Your task to perform on an android device: Go to ESPN.com Image 0: 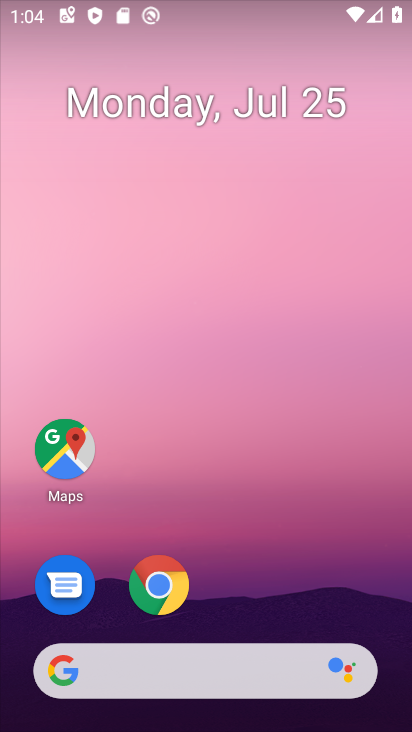
Step 0: click (213, 677)
Your task to perform on an android device: Go to ESPN.com Image 1: 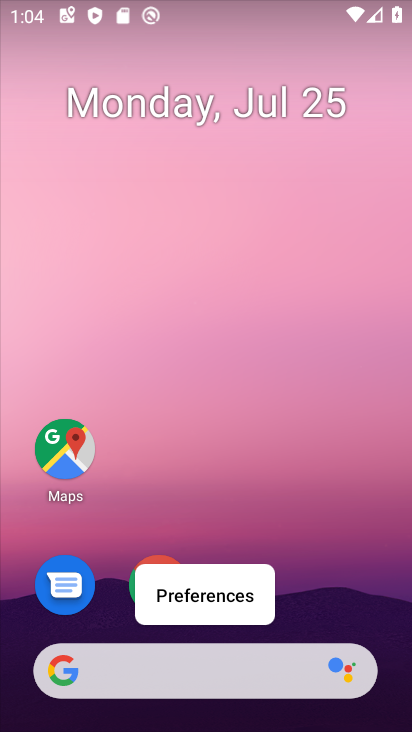
Step 1: click (172, 689)
Your task to perform on an android device: Go to ESPN.com Image 2: 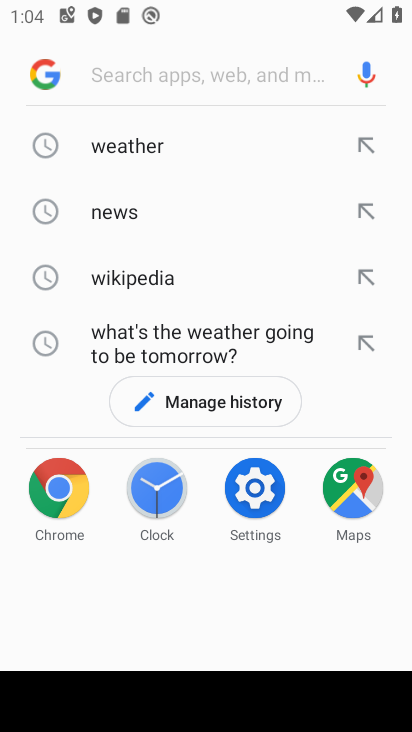
Step 2: type "espn.com"
Your task to perform on an android device: Go to ESPN.com Image 3: 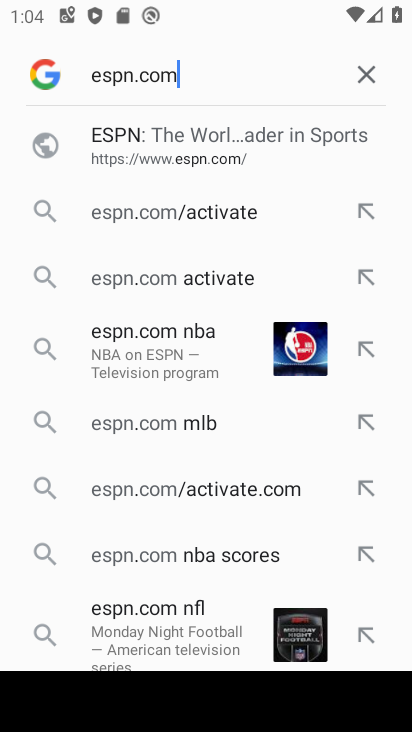
Step 3: click (258, 146)
Your task to perform on an android device: Go to ESPN.com Image 4: 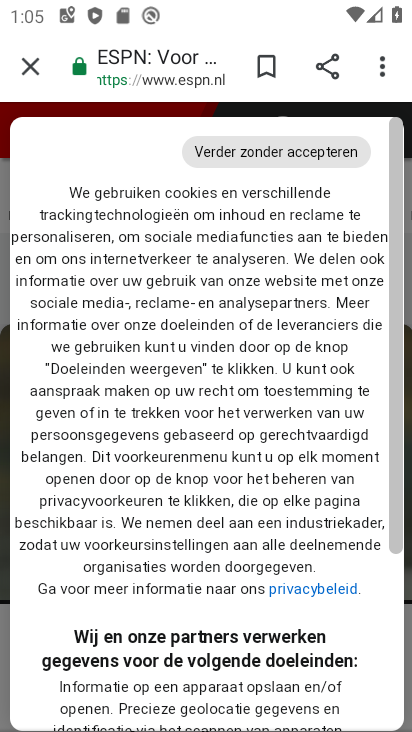
Step 4: drag from (271, 660) to (287, 200)
Your task to perform on an android device: Go to ESPN.com Image 5: 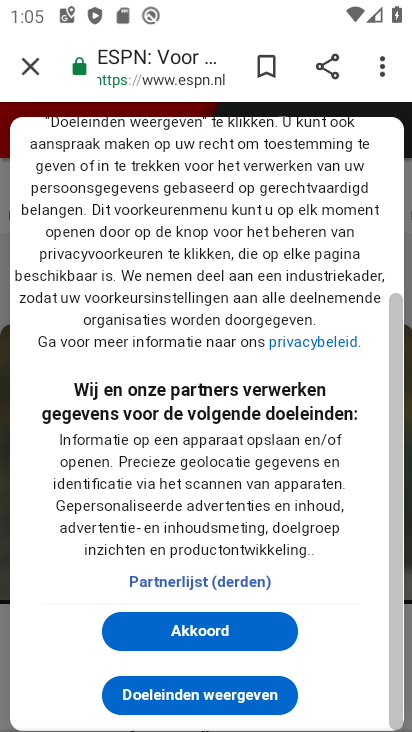
Step 5: drag from (290, 498) to (297, 259)
Your task to perform on an android device: Go to ESPN.com Image 6: 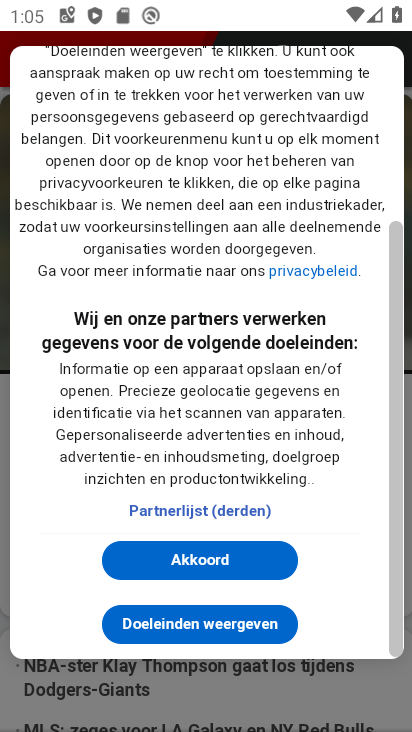
Step 6: drag from (294, 96) to (327, 607)
Your task to perform on an android device: Go to ESPN.com Image 7: 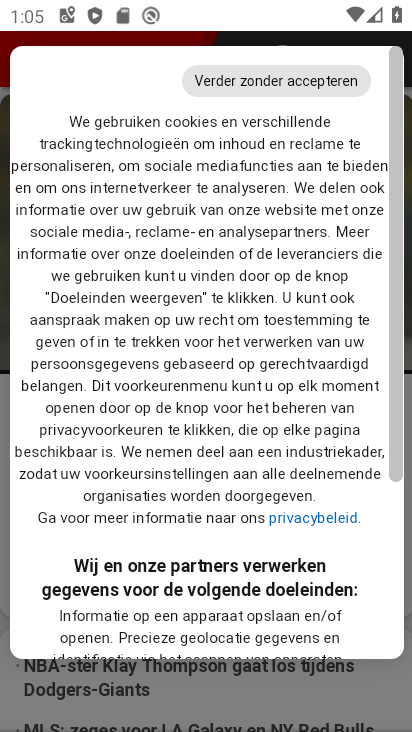
Step 7: click (344, 75)
Your task to perform on an android device: Go to ESPN.com Image 8: 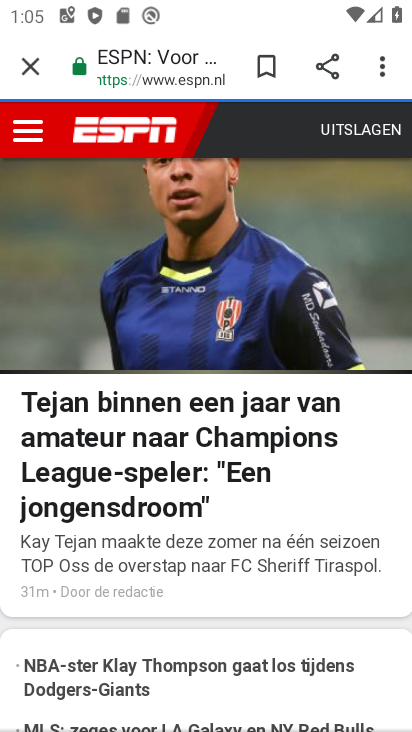
Step 8: click (383, 70)
Your task to perform on an android device: Go to ESPN.com Image 9: 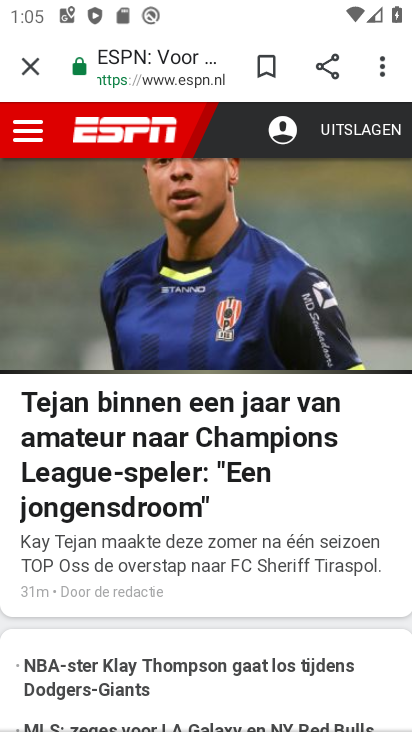
Step 9: click (383, 71)
Your task to perform on an android device: Go to ESPN.com Image 10: 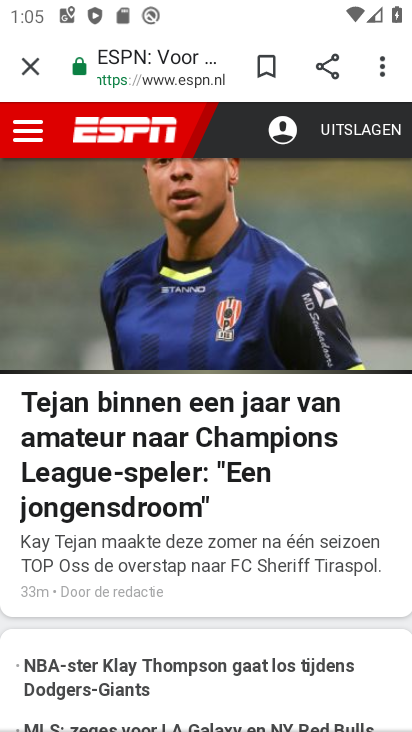
Step 10: click (383, 64)
Your task to perform on an android device: Go to ESPN.com Image 11: 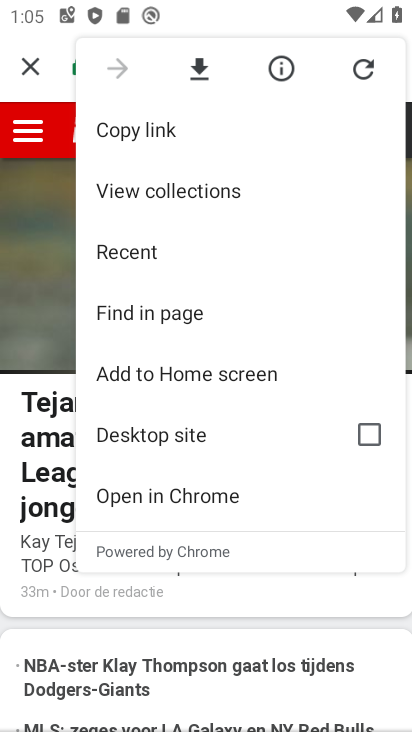
Step 11: drag from (243, 417) to (263, 141)
Your task to perform on an android device: Go to ESPN.com Image 12: 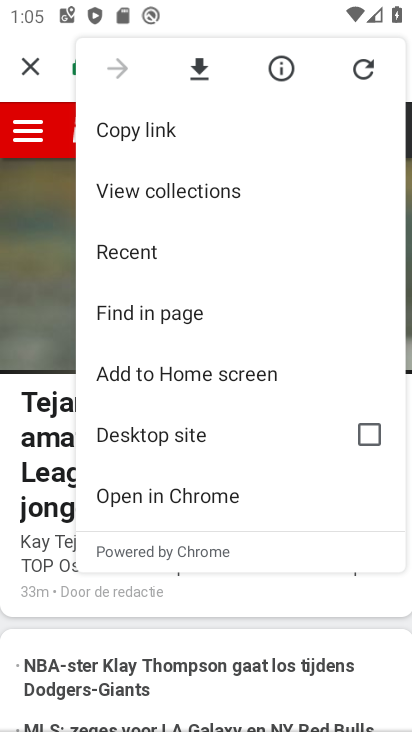
Step 12: click (53, 317)
Your task to perform on an android device: Go to ESPN.com Image 13: 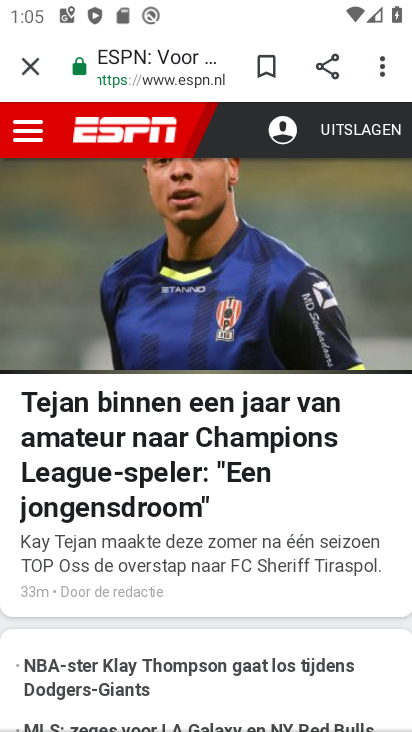
Step 13: task complete